Your task to perform on an android device: turn on notifications settings in the gmail app Image 0: 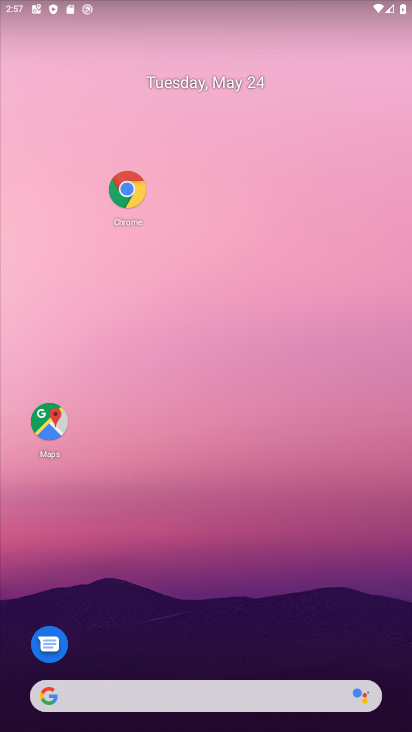
Step 0: drag from (240, 566) to (290, 84)
Your task to perform on an android device: turn on notifications settings in the gmail app Image 1: 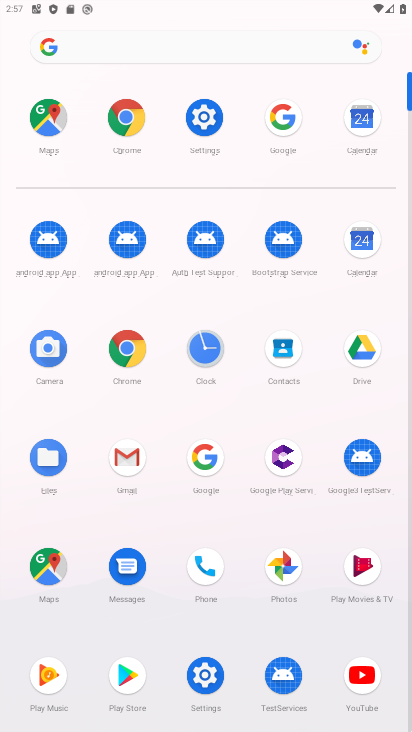
Step 1: click (119, 454)
Your task to perform on an android device: turn on notifications settings in the gmail app Image 2: 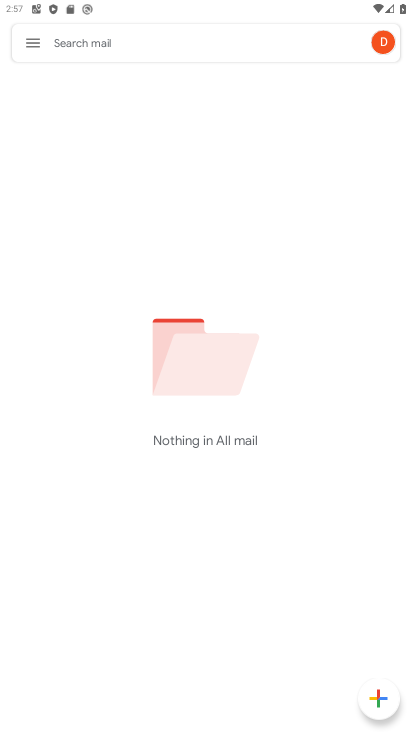
Step 2: click (30, 45)
Your task to perform on an android device: turn on notifications settings in the gmail app Image 3: 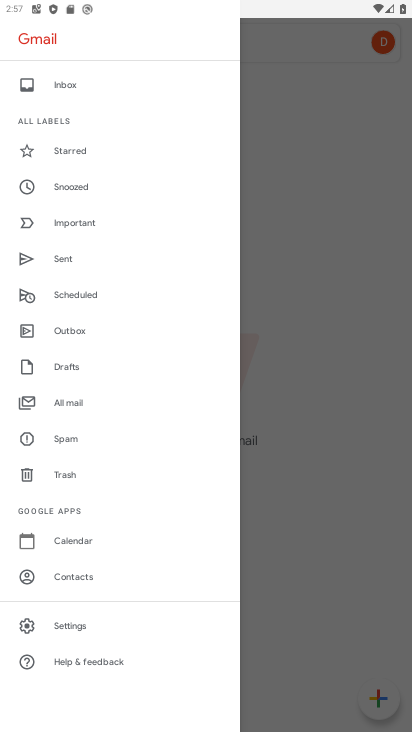
Step 3: click (98, 617)
Your task to perform on an android device: turn on notifications settings in the gmail app Image 4: 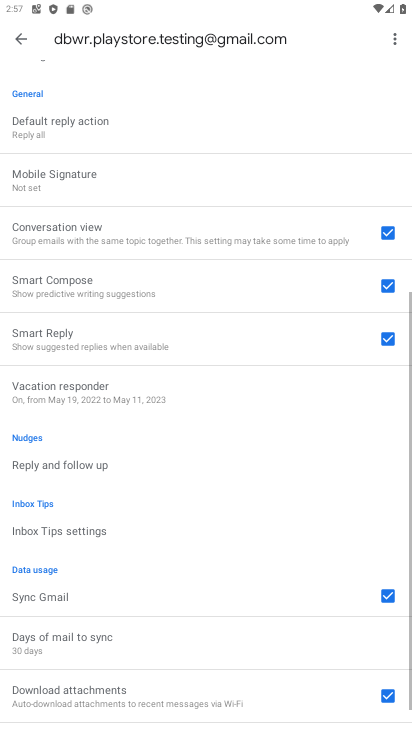
Step 4: drag from (173, 609) to (240, 181)
Your task to perform on an android device: turn on notifications settings in the gmail app Image 5: 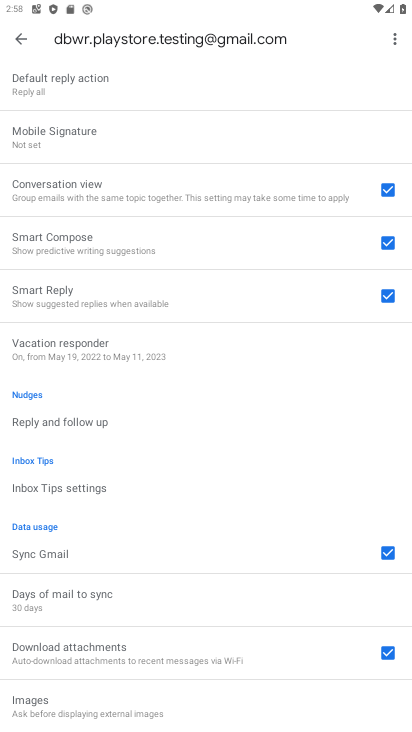
Step 5: drag from (159, 258) to (164, 574)
Your task to perform on an android device: turn on notifications settings in the gmail app Image 6: 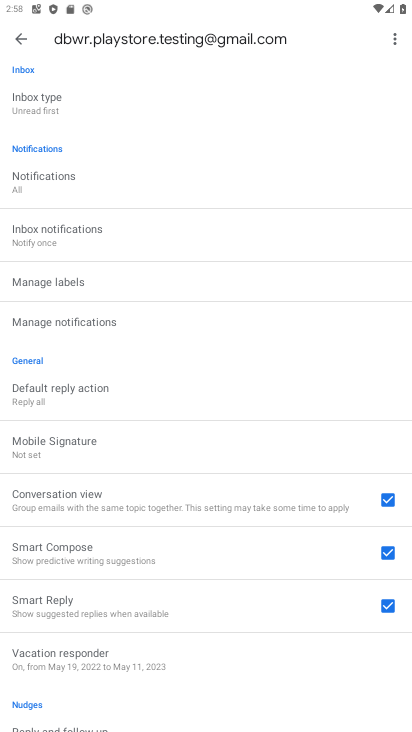
Step 6: click (71, 188)
Your task to perform on an android device: turn on notifications settings in the gmail app Image 7: 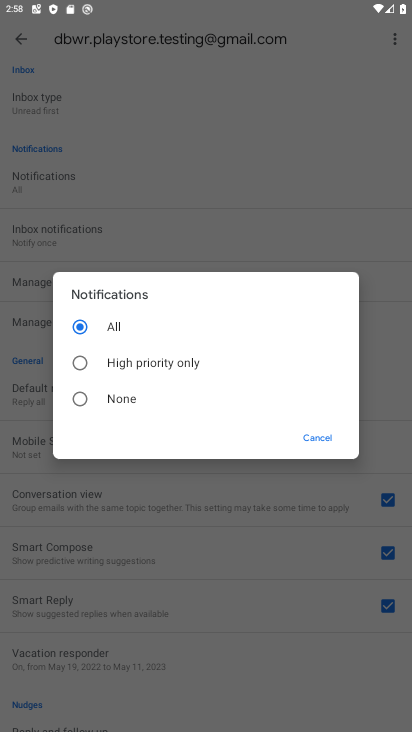
Step 7: task complete